Your task to perform on an android device: find which apps use the phone's location Image 0: 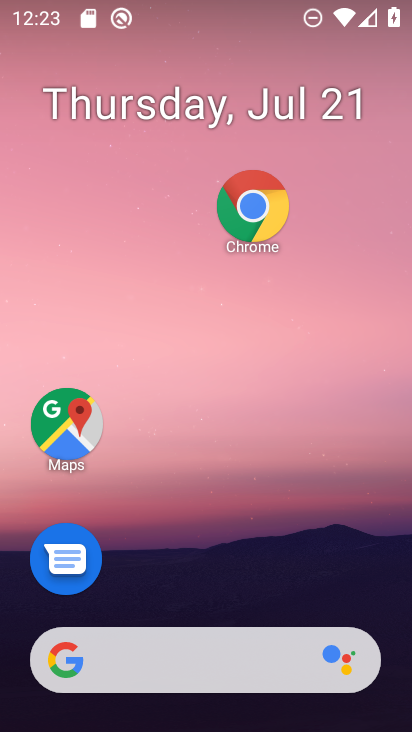
Step 0: drag from (198, 620) to (296, 8)
Your task to perform on an android device: find which apps use the phone's location Image 1: 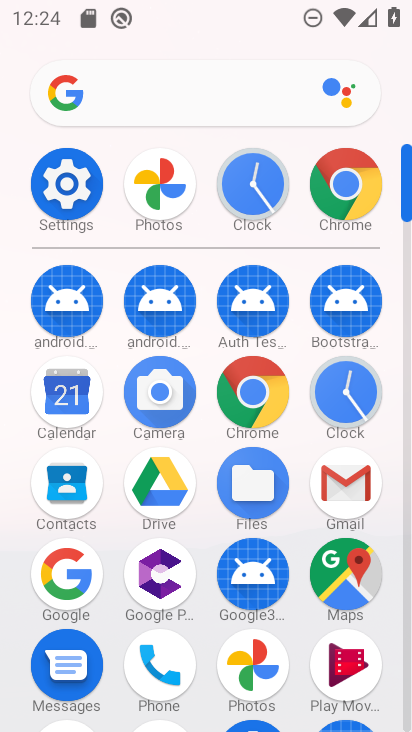
Step 1: click (62, 213)
Your task to perform on an android device: find which apps use the phone's location Image 2: 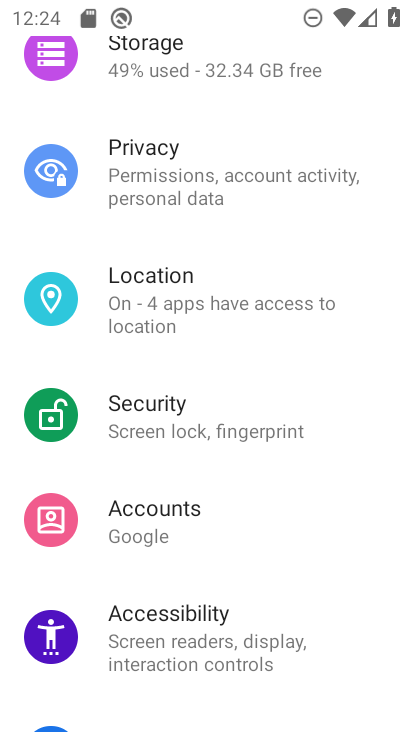
Step 2: click (245, 307)
Your task to perform on an android device: find which apps use the phone's location Image 3: 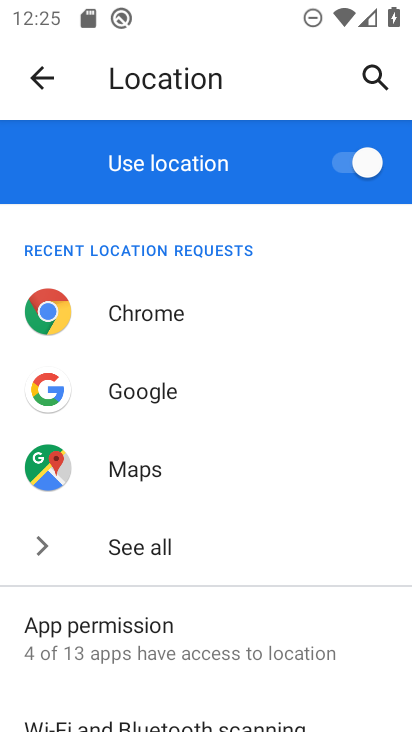
Step 3: click (174, 645)
Your task to perform on an android device: find which apps use the phone's location Image 4: 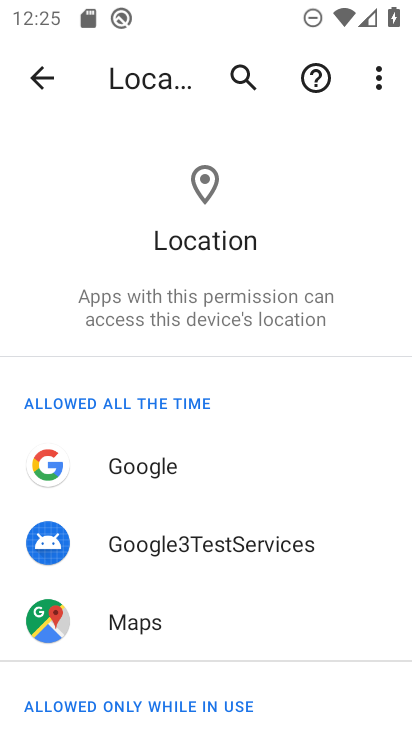
Step 4: task complete